Your task to perform on an android device: toggle notification dots Image 0: 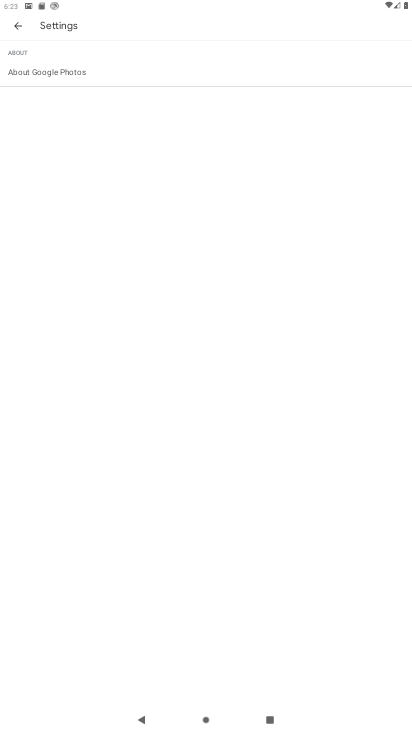
Step 0: press home button
Your task to perform on an android device: toggle notification dots Image 1: 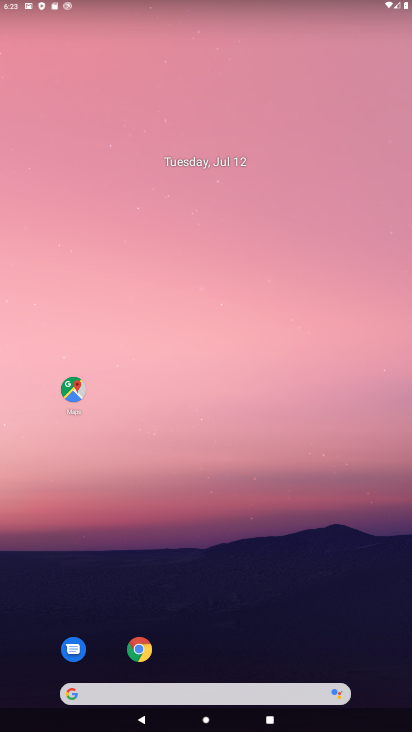
Step 1: drag from (196, 690) to (272, 74)
Your task to perform on an android device: toggle notification dots Image 2: 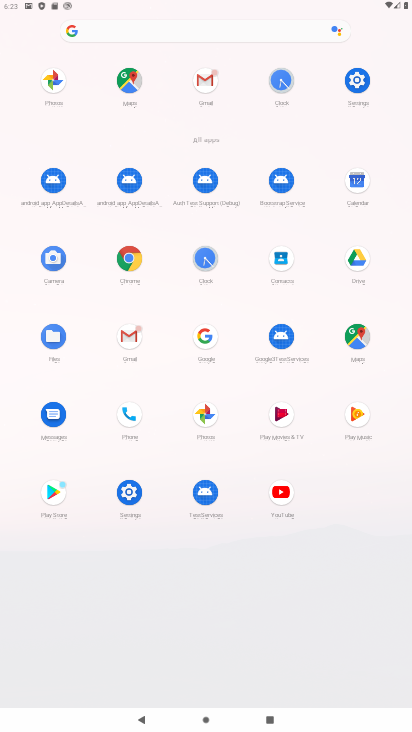
Step 2: click (359, 80)
Your task to perform on an android device: toggle notification dots Image 3: 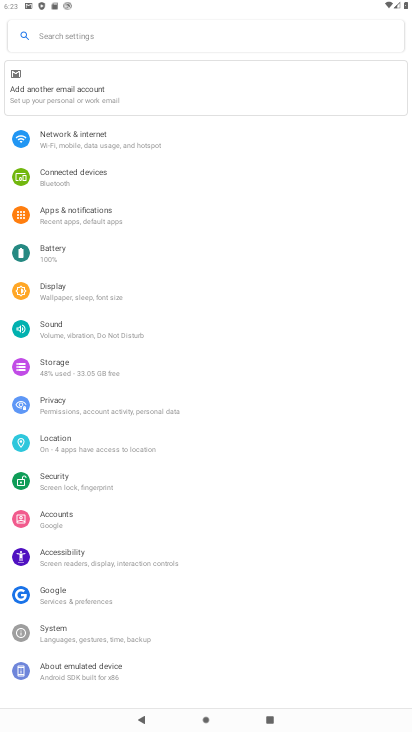
Step 3: click (70, 214)
Your task to perform on an android device: toggle notification dots Image 4: 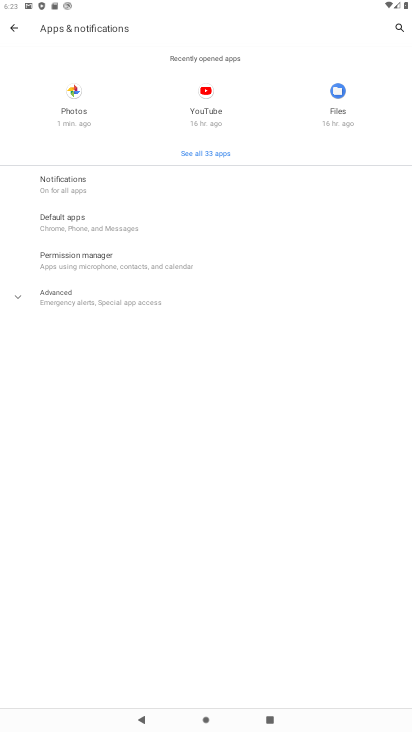
Step 4: click (79, 183)
Your task to perform on an android device: toggle notification dots Image 5: 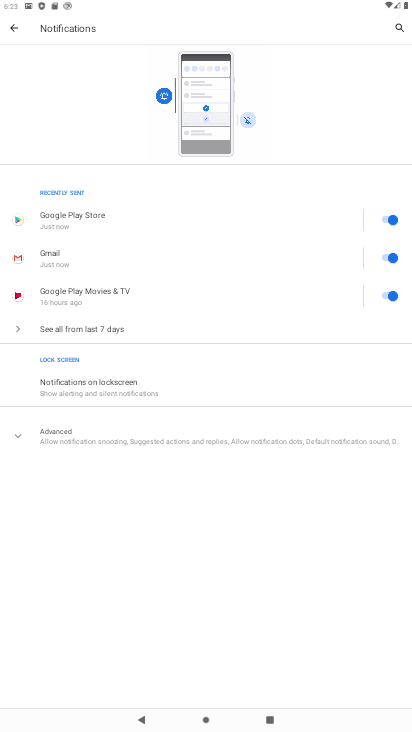
Step 5: click (82, 440)
Your task to perform on an android device: toggle notification dots Image 6: 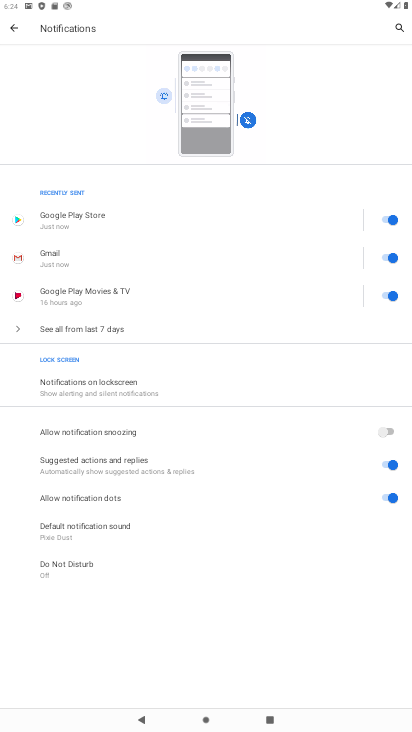
Step 6: click (396, 502)
Your task to perform on an android device: toggle notification dots Image 7: 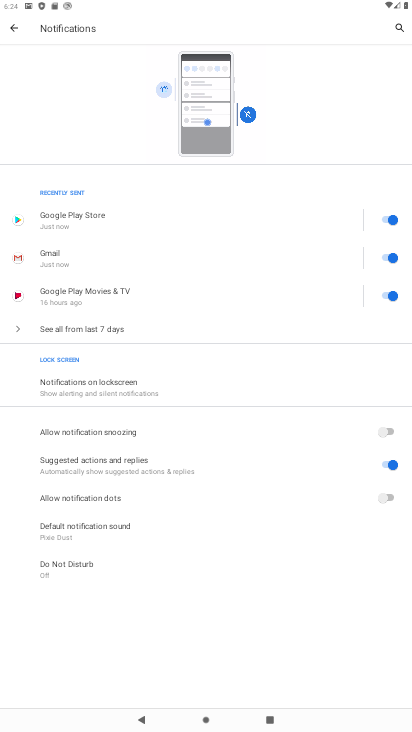
Step 7: task complete